Your task to perform on an android device: empty trash in google photos Image 0: 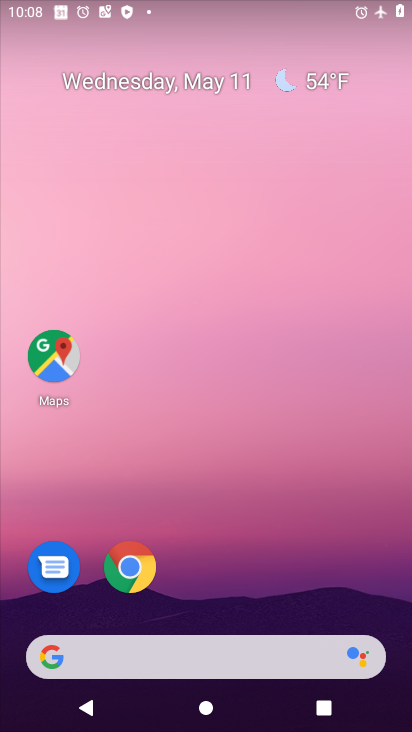
Step 0: drag from (198, 581) to (335, 67)
Your task to perform on an android device: empty trash in google photos Image 1: 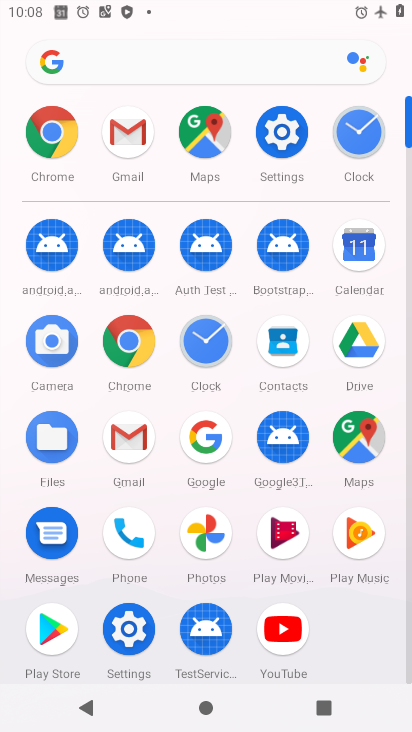
Step 1: click (191, 547)
Your task to perform on an android device: empty trash in google photos Image 2: 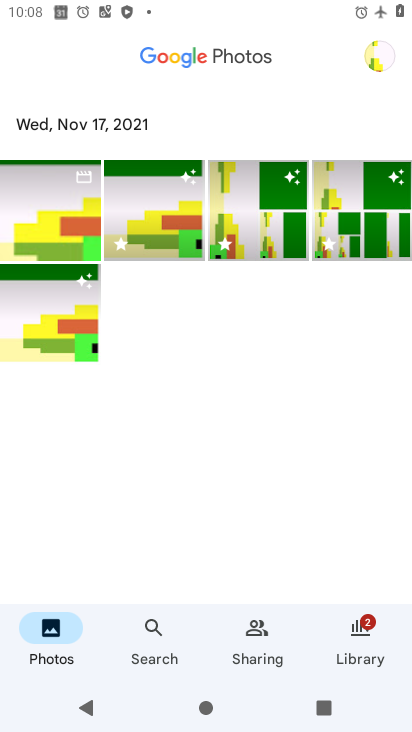
Step 2: click (370, 634)
Your task to perform on an android device: empty trash in google photos Image 3: 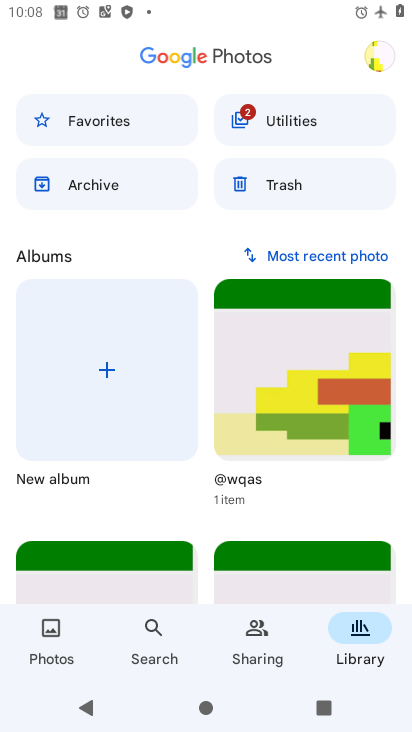
Step 3: click (296, 193)
Your task to perform on an android device: empty trash in google photos Image 4: 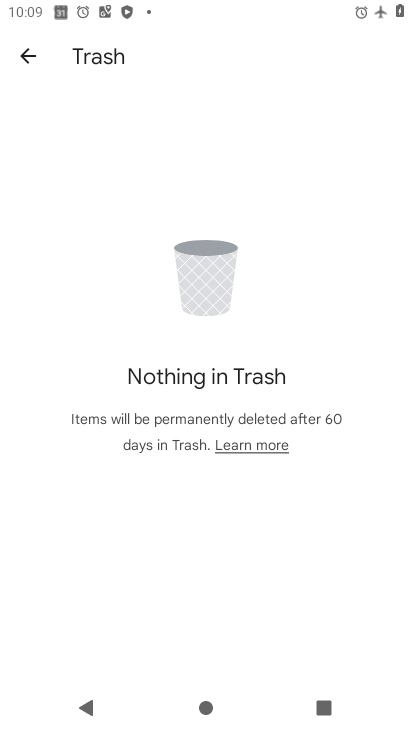
Step 4: task complete